Your task to perform on an android device: Show me popular videos on Youtube Image 0: 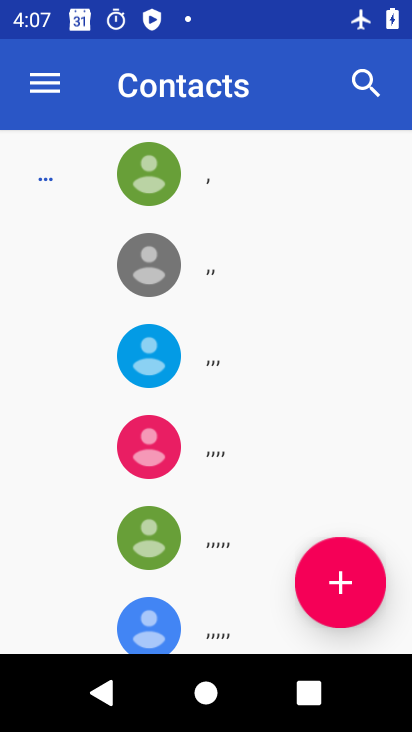
Step 0: press home button
Your task to perform on an android device: Show me popular videos on Youtube Image 1: 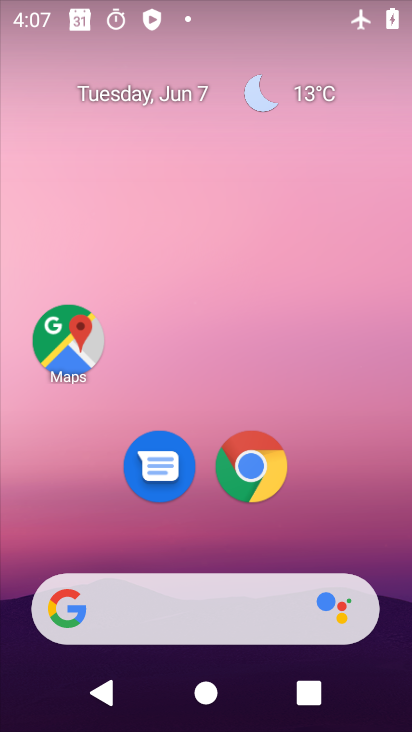
Step 1: drag from (401, 583) to (253, 107)
Your task to perform on an android device: Show me popular videos on Youtube Image 2: 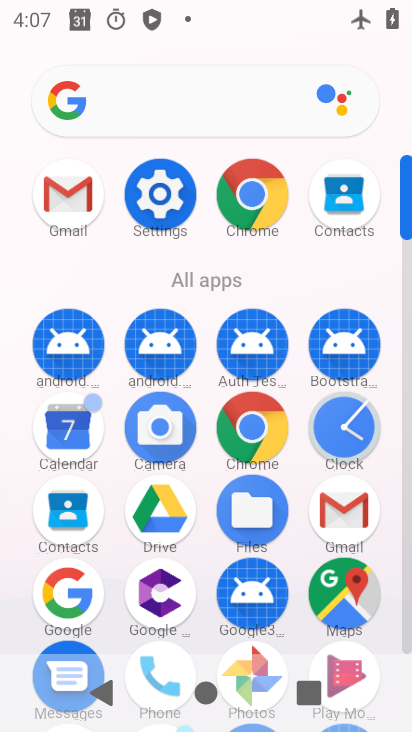
Step 2: click (407, 645)
Your task to perform on an android device: Show me popular videos on Youtube Image 3: 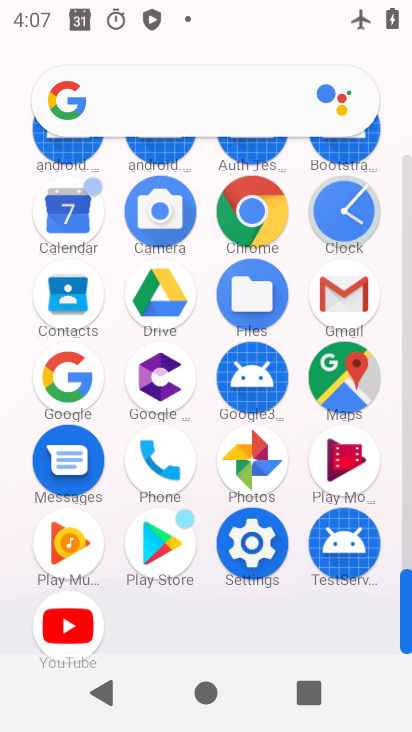
Step 3: click (80, 636)
Your task to perform on an android device: Show me popular videos on Youtube Image 4: 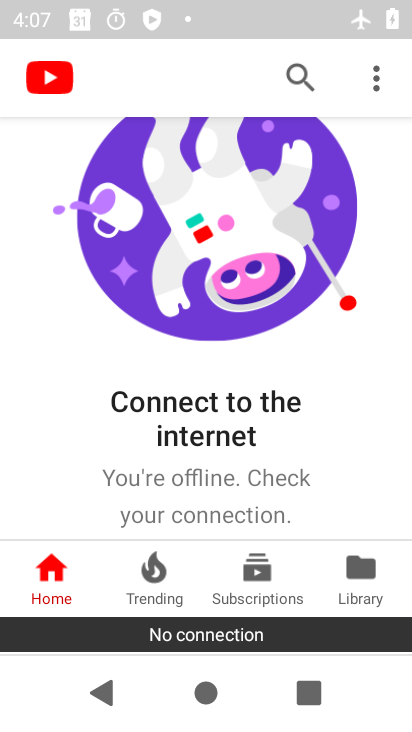
Step 4: task complete